Your task to perform on an android device: find photos in the google photos app Image 0: 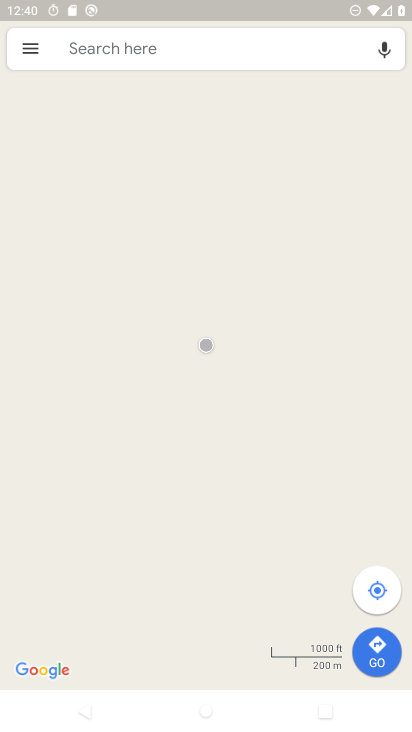
Step 0: press home button
Your task to perform on an android device: find photos in the google photos app Image 1: 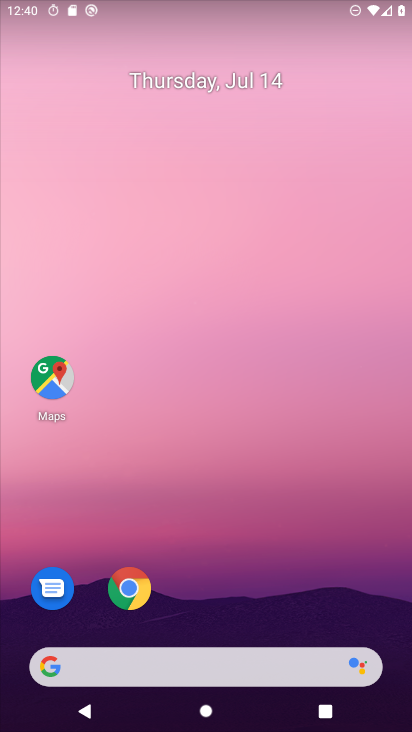
Step 1: drag from (172, 667) to (225, 178)
Your task to perform on an android device: find photos in the google photos app Image 2: 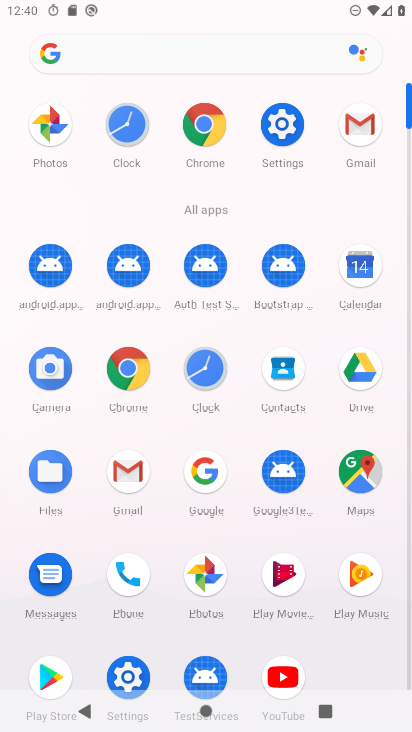
Step 2: click (213, 571)
Your task to perform on an android device: find photos in the google photos app Image 3: 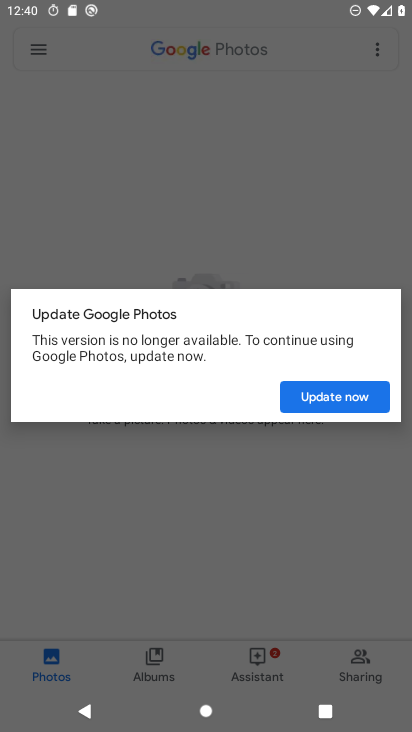
Step 3: click (337, 390)
Your task to perform on an android device: find photos in the google photos app Image 4: 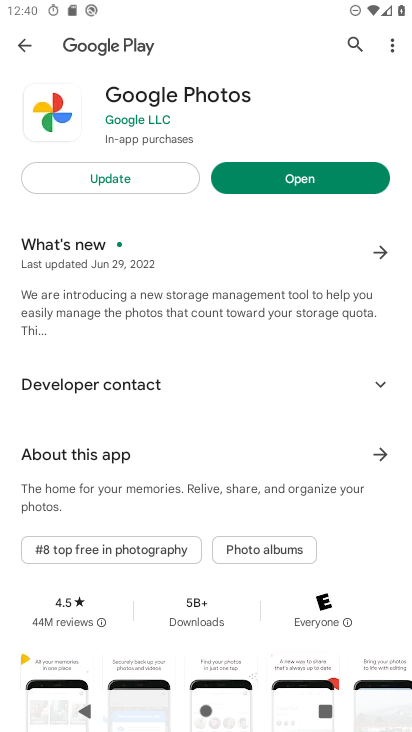
Step 4: click (291, 177)
Your task to perform on an android device: find photos in the google photos app Image 5: 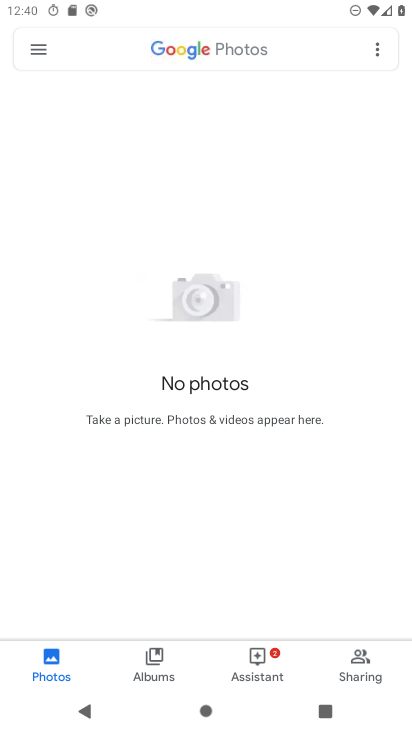
Step 5: task complete